Your task to perform on an android device: add a label to a message in the gmail app Image 0: 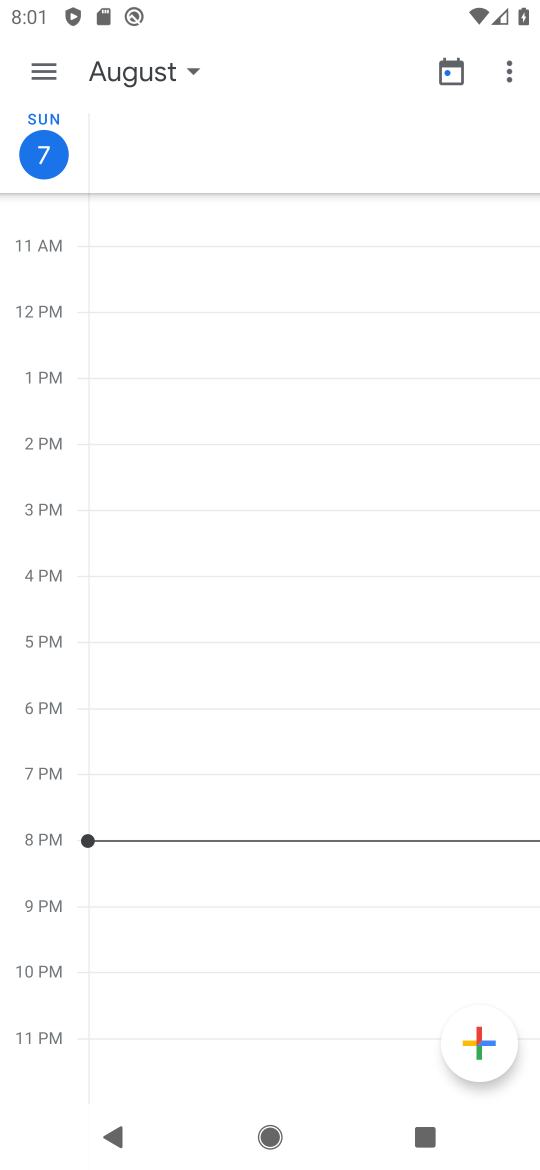
Step 0: press home button
Your task to perform on an android device: add a label to a message in the gmail app Image 1: 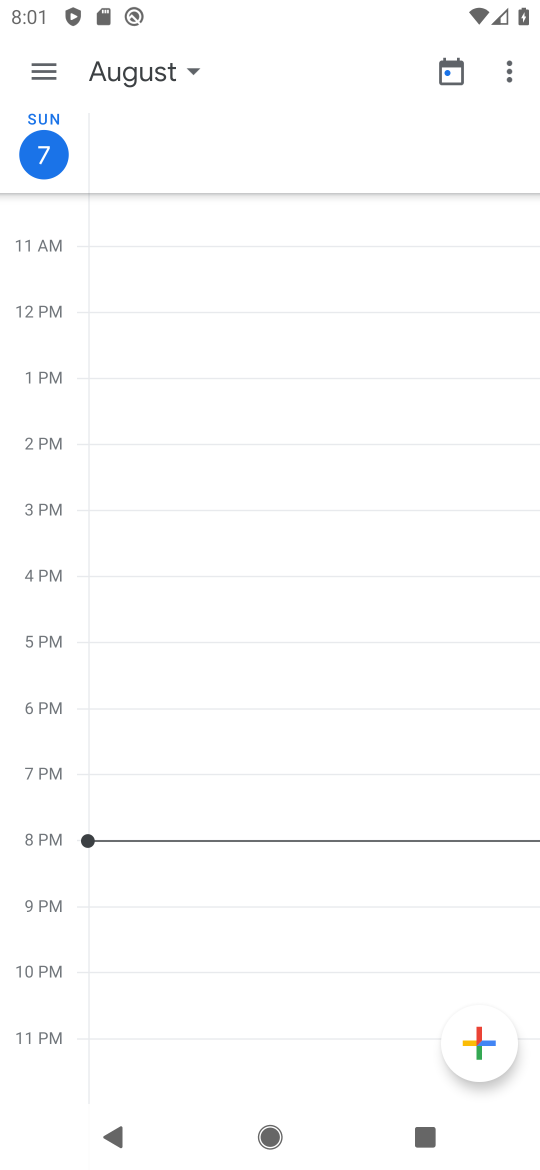
Step 1: press home button
Your task to perform on an android device: add a label to a message in the gmail app Image 2: 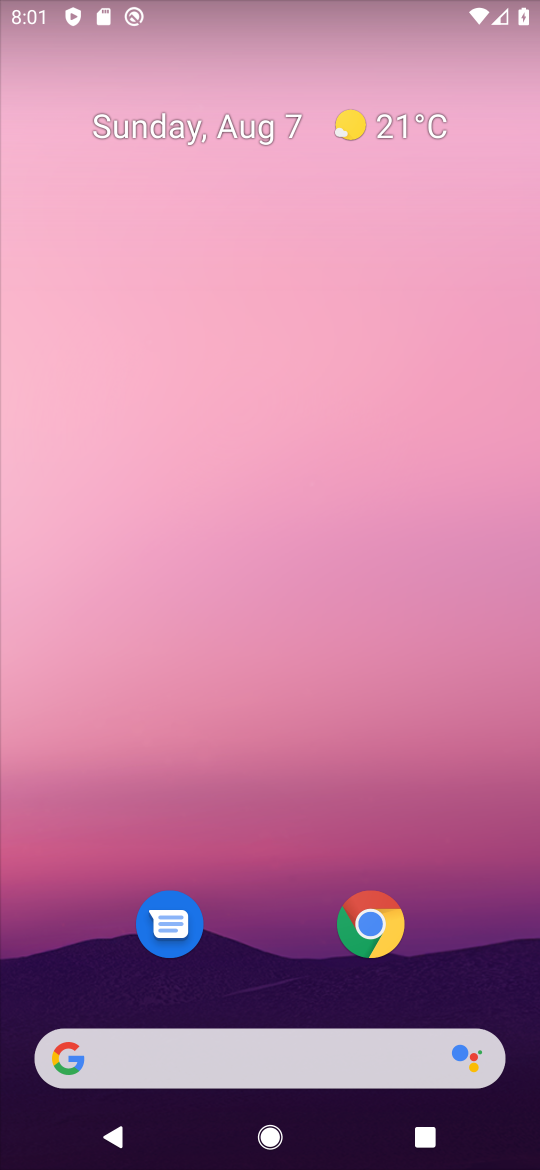
Step 2: drag from (251, 908) to (283, 8)
Your task to perform on an android device: add a label to a message in the gmail app Image 3: 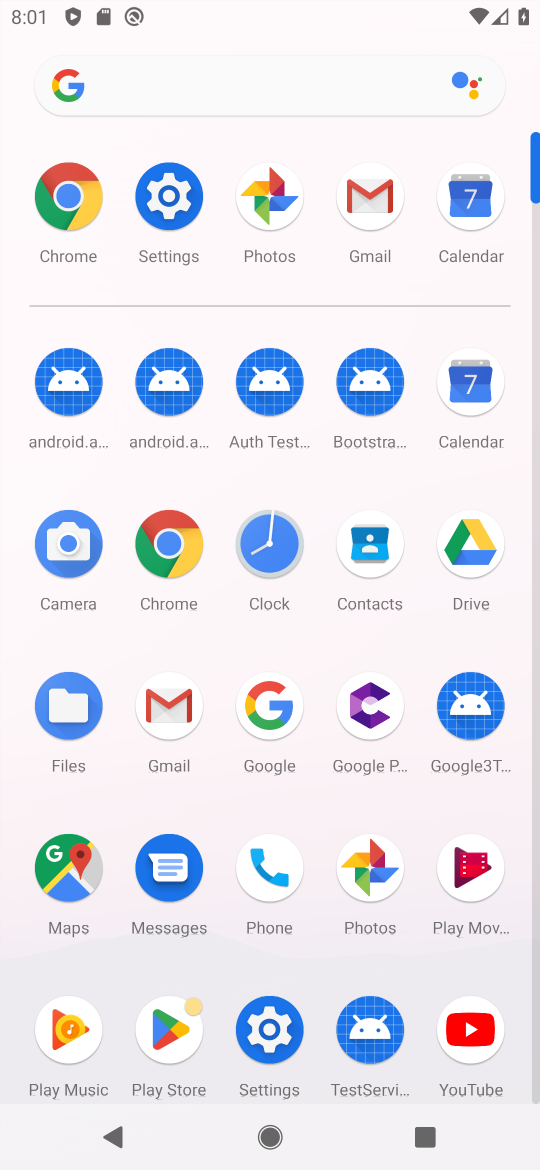
Step 3: click (374, 197)
Your task to perform on an android device: add a label to a message in the gmail app Image 4: 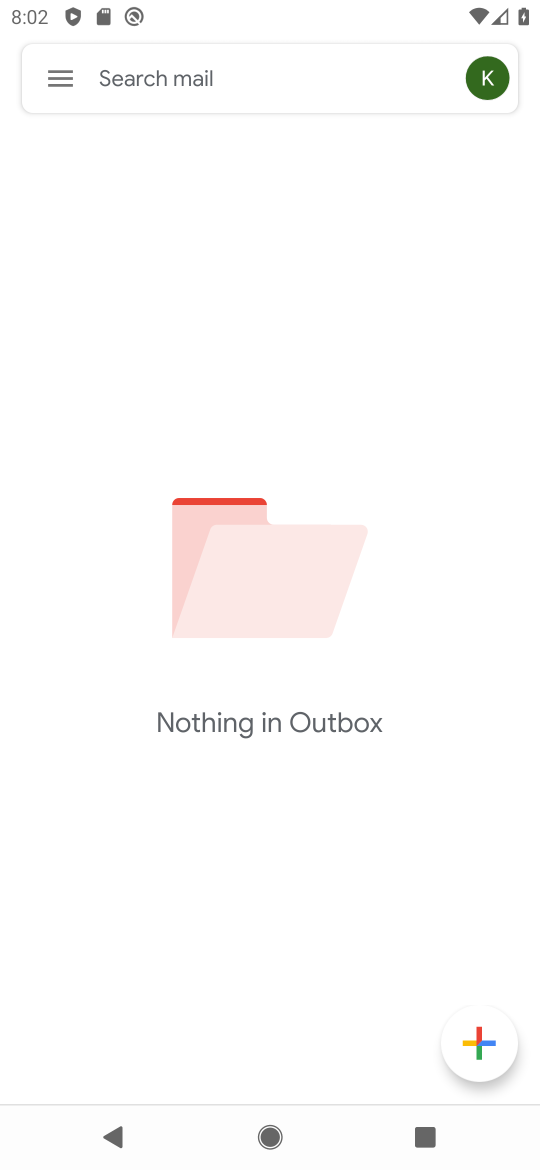
Step 4: click (66, 79)
Your task to perform on an android device: add a label to a message in the gmail app Image 5: 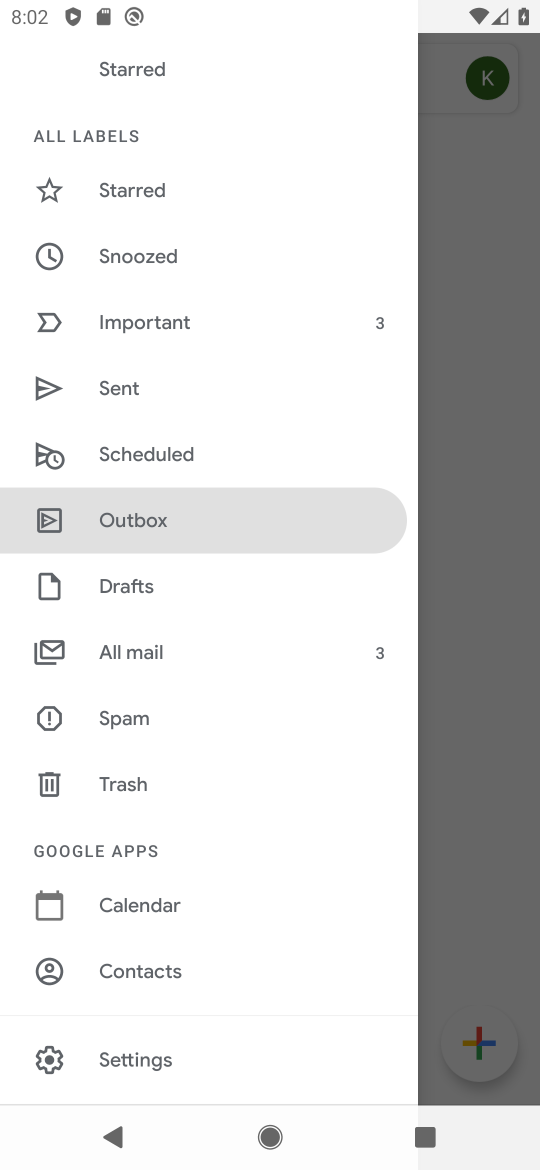
Step 5: click (148, 639)
Your task to perform on an android device: add a label to a message in the gmail app Image 6: 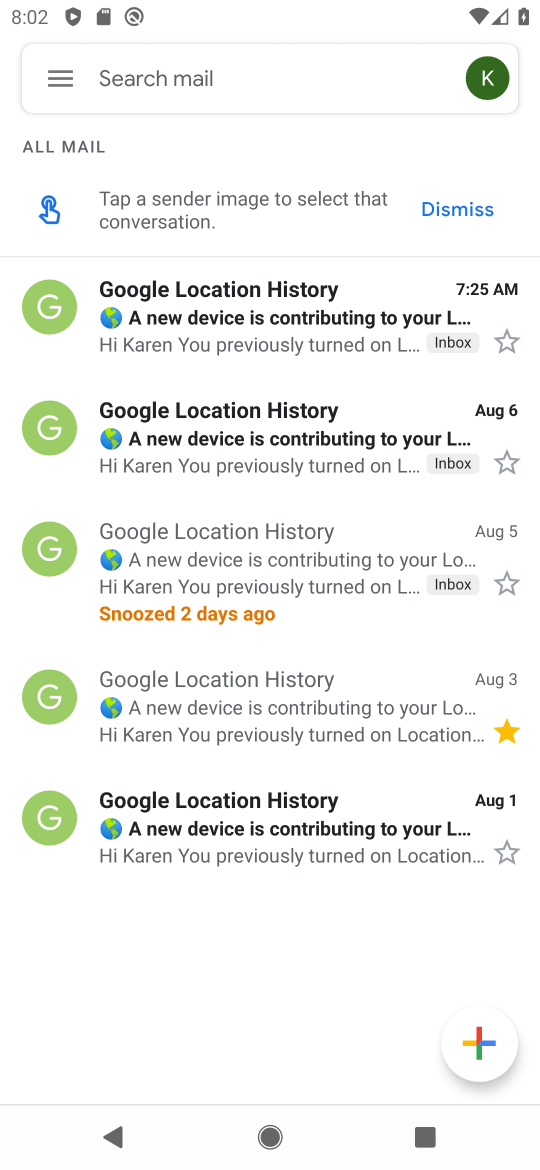
Step 6: click (347, 697)
Your task to perform on an android device: add a label to a message in the gmail app Image 7: 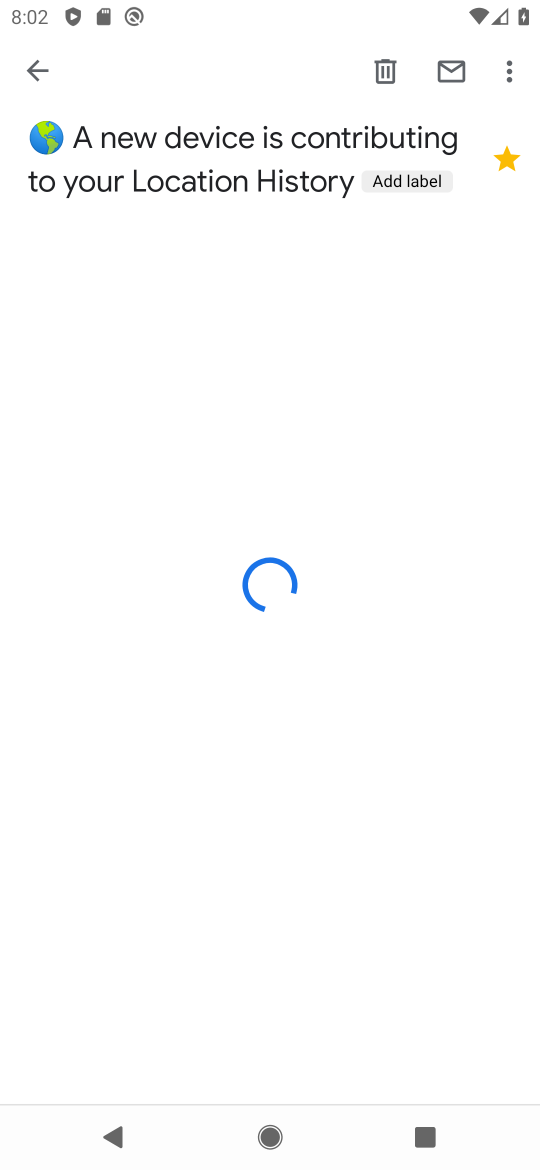
Step 7: click (504, 69)
Your task to perform on an android device: add a label to a message in the gmail app Image 8: 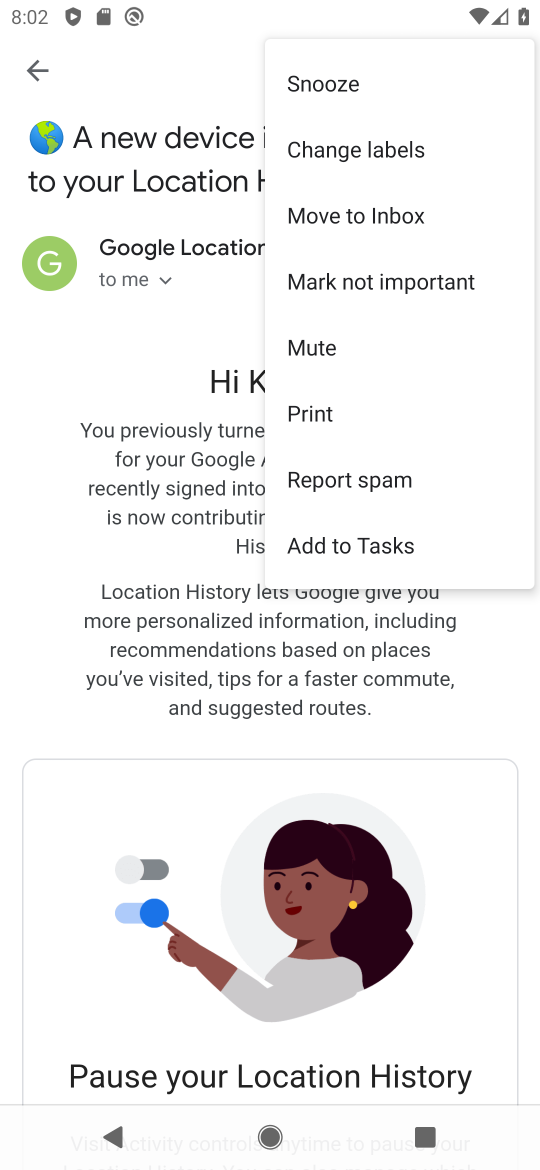
Step 8: click (420, 281)
Your task to perform on an android device: add a label to a message in the gmail app Image 9: 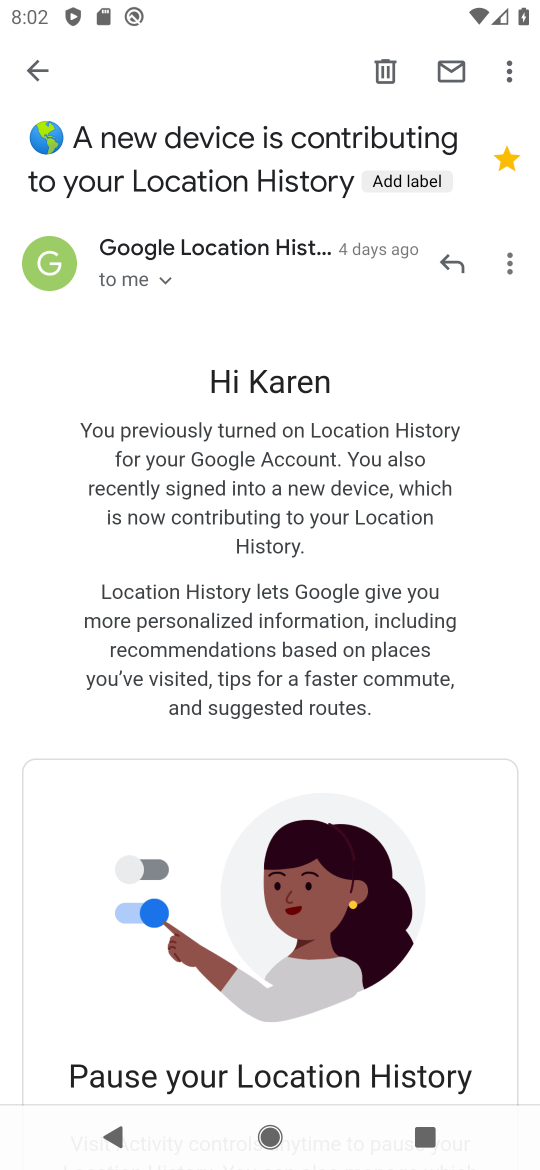
Step 9: task complete